Your task to perform on an android device: Open Youtube and go to "Your channel" Image 0: 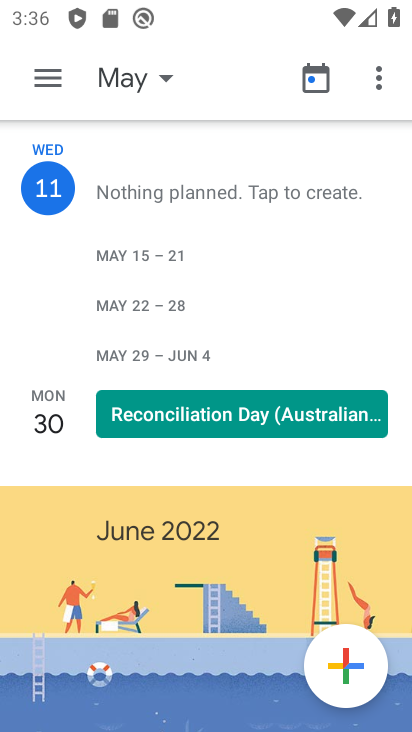
Step 0: press home button
Your task to perform on an android device: Open Youtube and go to "Your channel" Image 1: 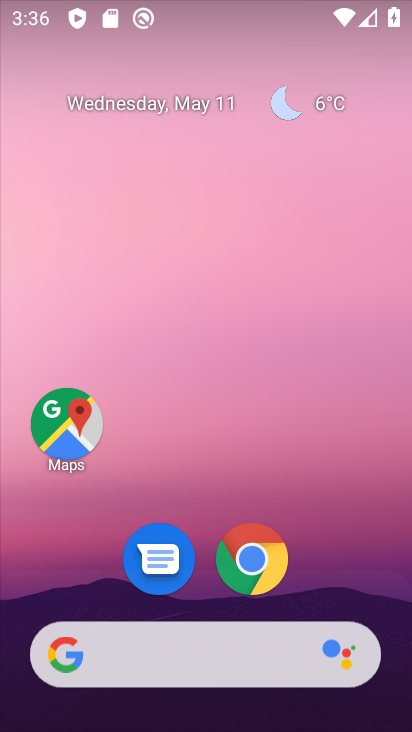
Step 1: drag from (346, 480) to (355, 9)
Your task to perform on an android device: Open Youtube and go to "Your channel" Image 2: 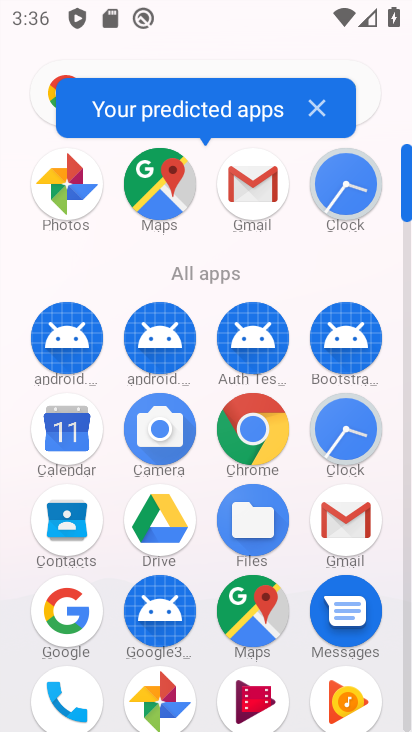
Step 2: drag from (397, 665) to (370, 189)
Your task to perform on an android device: Open Youtube and go to "Your channel" Image 3: 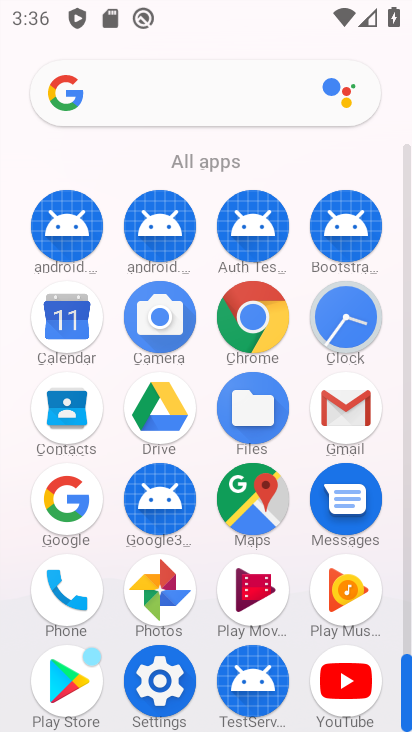
Step 3: click (371, 684)
Your task to perform on an android device: Open Youtube and go to "Your channel" Image 4: 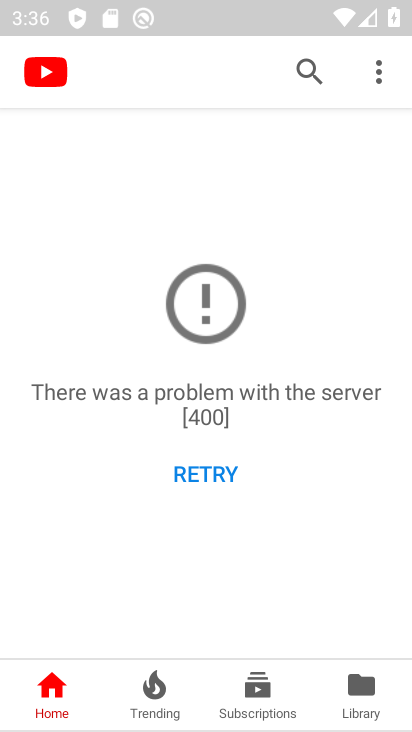
Step 4: click (367, 68)
Your task to perform on an android device: Open Youtube and go to "Your channel" Image 5: 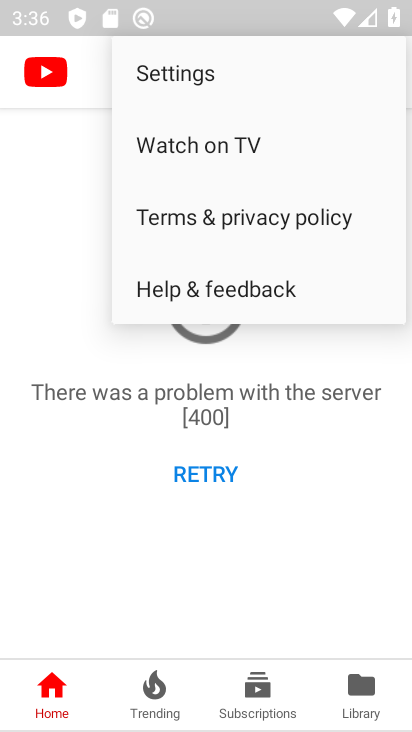
Step 5: click (116, 102)
Your task to perform on an android device: Open Youtube and go to "Your channel" Image 6: 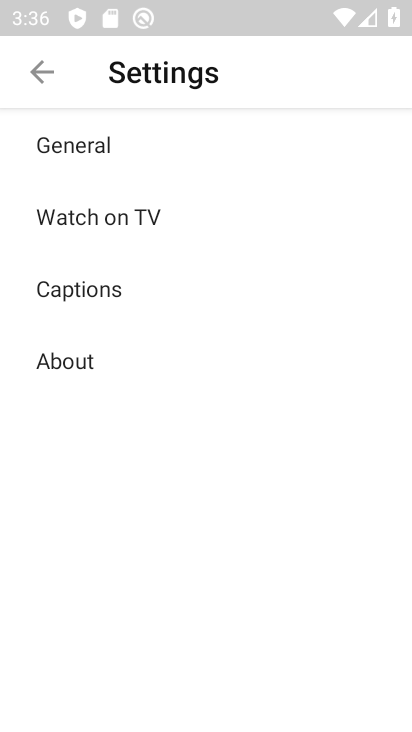
Step 6: click (39, 88)
Your task to perform on an android device: Open Youtube and go to "Your channel" Image 7: 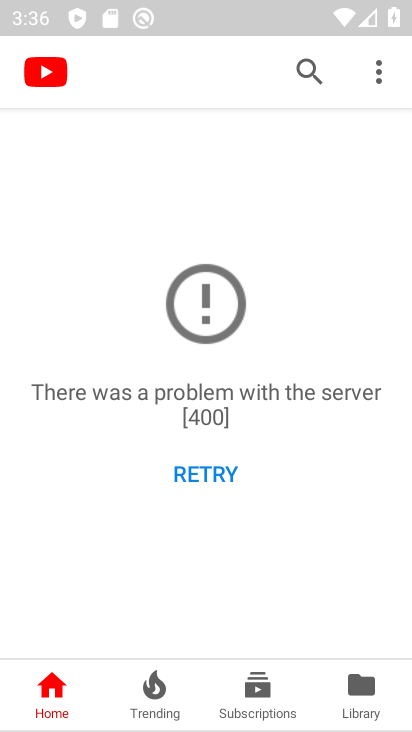
Step 7: click (39, 88)
Your task to perform on an android device: Open Youtube and go to "Your channel" Image 8: 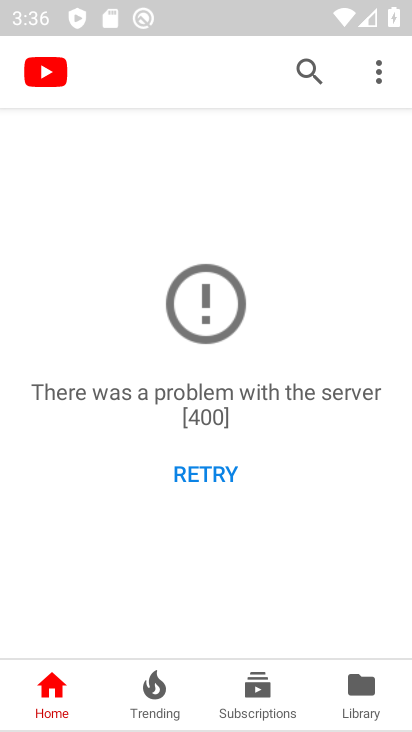
Step 8: task complete